Your task to perform on an android device: check out phone information Image 0: 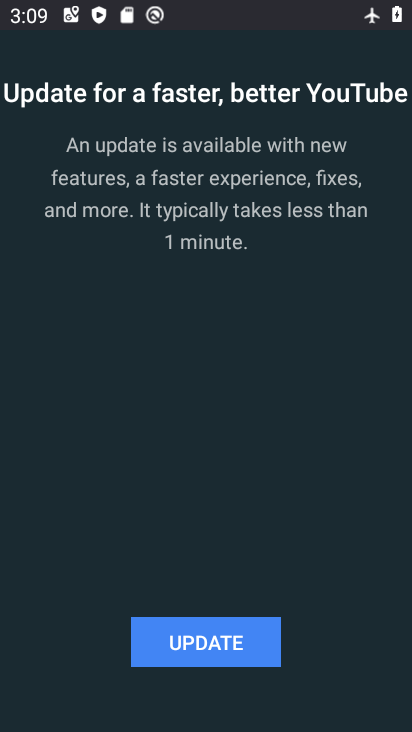
Step 0: press home button
Your task to perform on an android device: check out phone information Image 1: 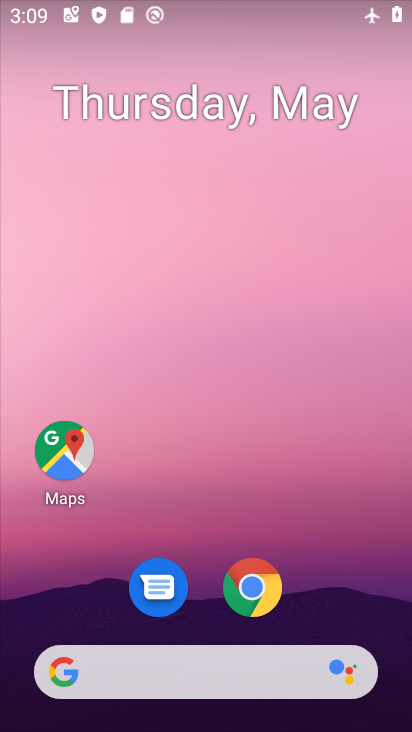
Step 1: drag from (195, 536) to (245, 152)
Your task to perform on an android device: check out phone information Image 2: 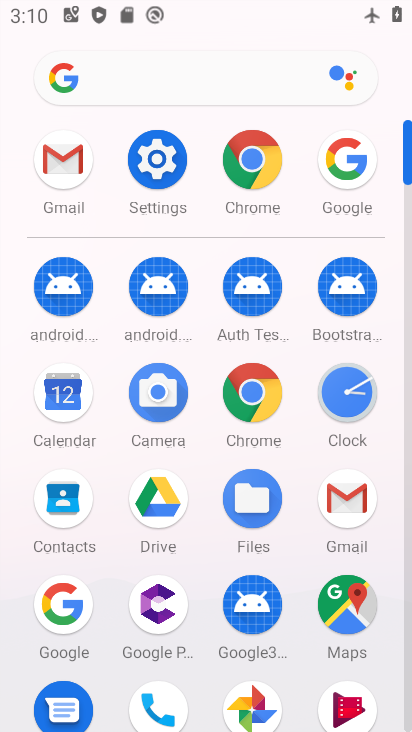
Step 2: click (162, 171)
Your task to perform on an android device: check out phone information Image 3: 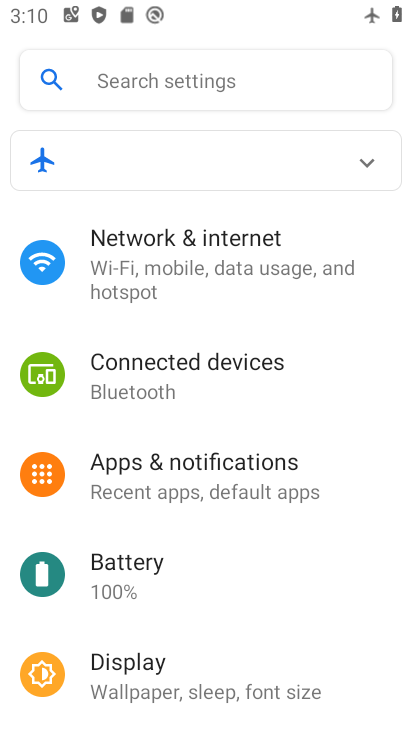
Step 3: drag from (163, 578) to (231, 211)
Your task to perform on an android device: check out phone information Image 4: 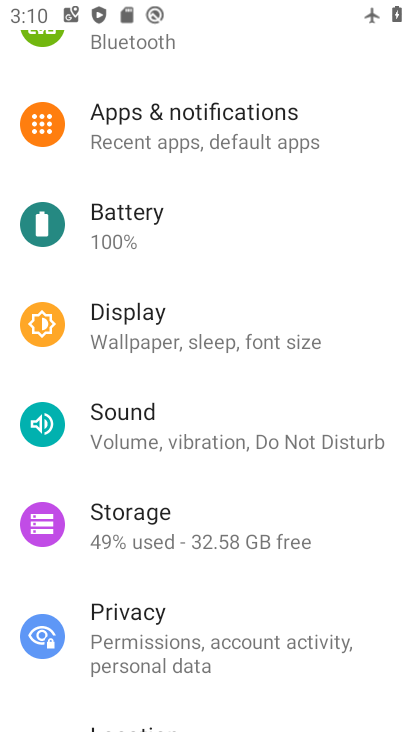
Step 4: drag from (184, 512) to (264, 164)
Your task to perform on an android device: check out phone information Image 5: 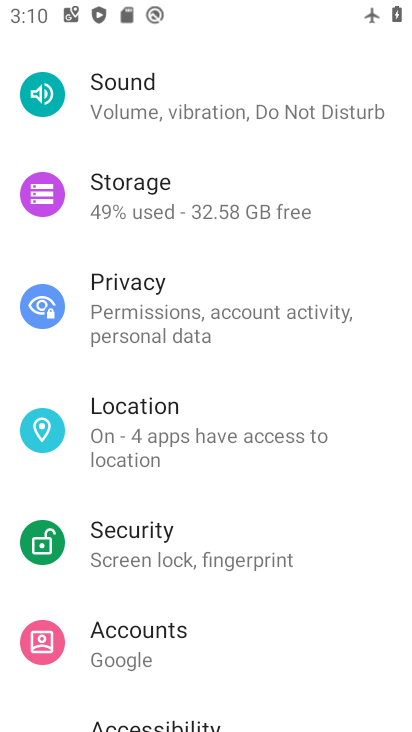
Step 5: drag from (189, 555) to (269, 284)
Your task to perform on an android device: check out phone information Image 6: 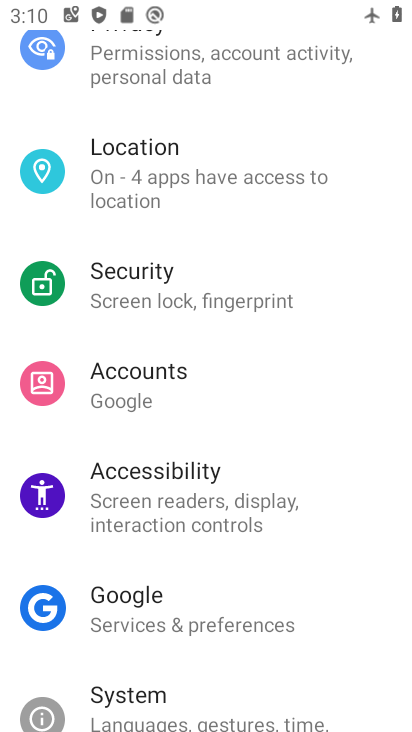
Step 6: drag from (183, 540) to (235, 282)
Your task to perform on an android device: check out phone information Image 7: 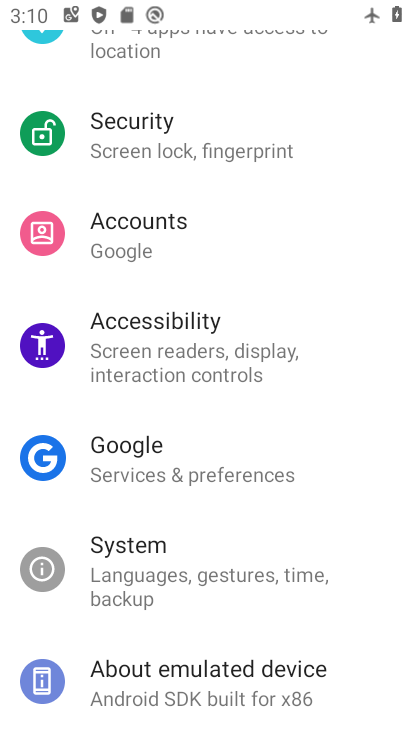
Step 7: drag from (167, 550) to (215, 284)
Your task to perform on an android device: check out phone information Image 8: 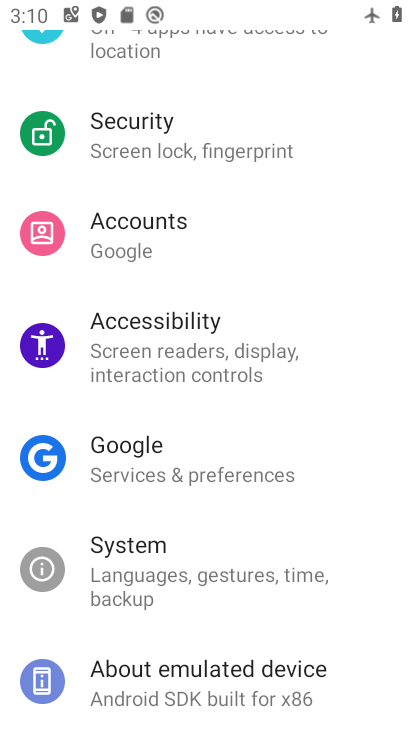
Step 8: click (232, 685)
Your task to perform on an android device: check out phone information Image 9: 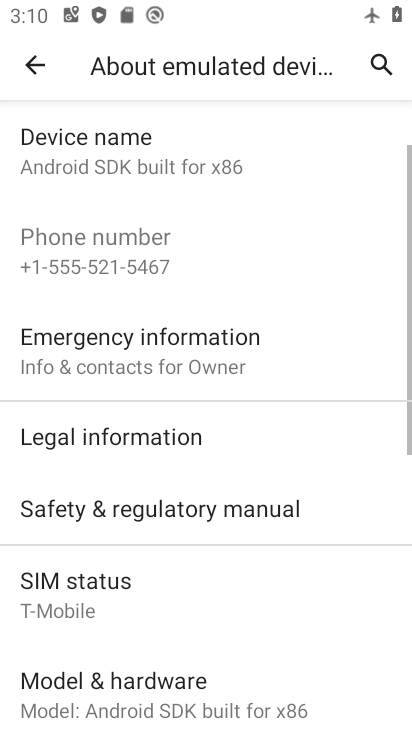
Step 9: task complete